Your task to perform on an android device: Open Youtube and go to "Your channel" Image 0: 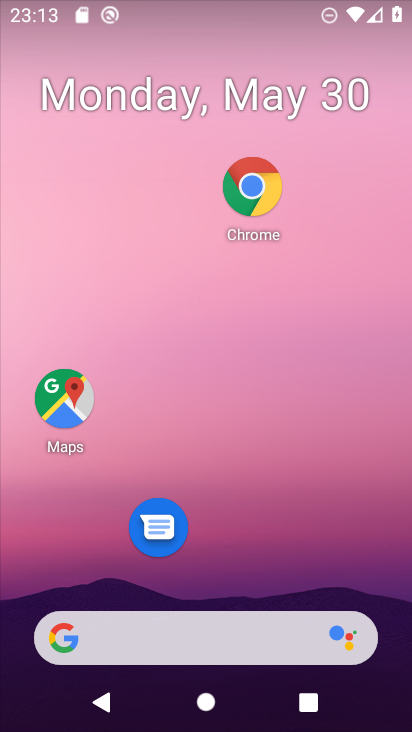
Step 0: drag from (312, 581) to (322, 271)
Your task to perform on an android device: Open Youtube and go to "Your channel" Image 1: 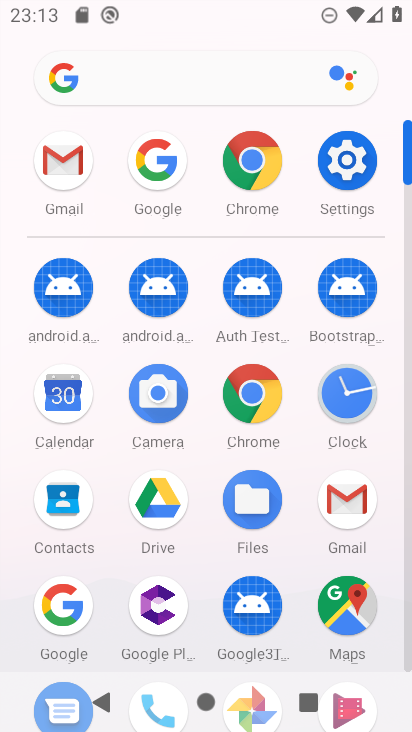
Step 1: drag from (287, 578) to (279, 189)
Your task to perform on an android device: Open Youtube and go to "Your channel" Image 2: 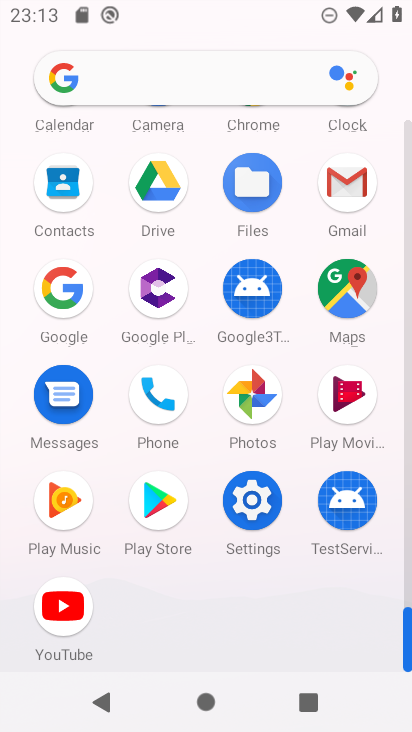
Step 2: click (47, 619)
Your task to perform on an android device: Open Youtube and go to "Your channel" Image 3: 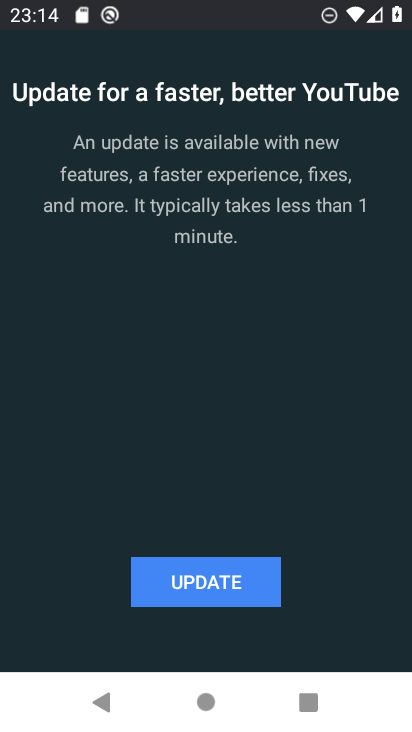
Step 3: task complete